Your task to perform on an android device: change your default location settings in chrome Image 0: 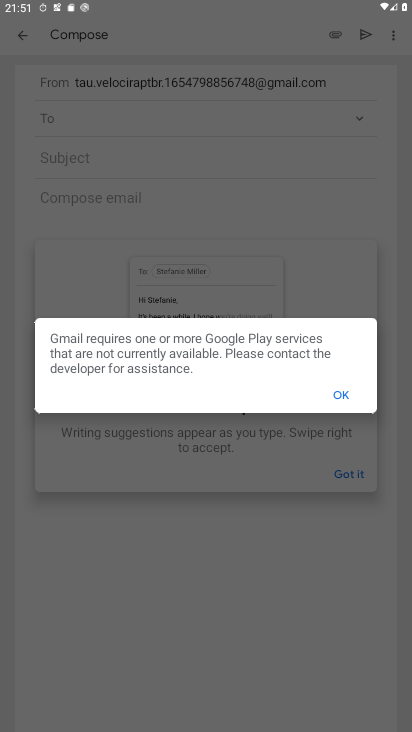
Step 0: press home button
Your task to perform on an android device: change your default location settings in chrome Image 1: 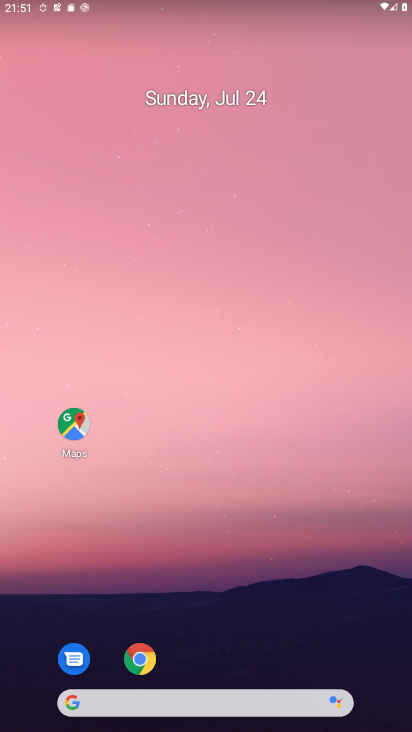
Step 1: drag from (205, 730) to (225, 120)
Your task to perform on an android device: change your default location settings in chrome Image 2: 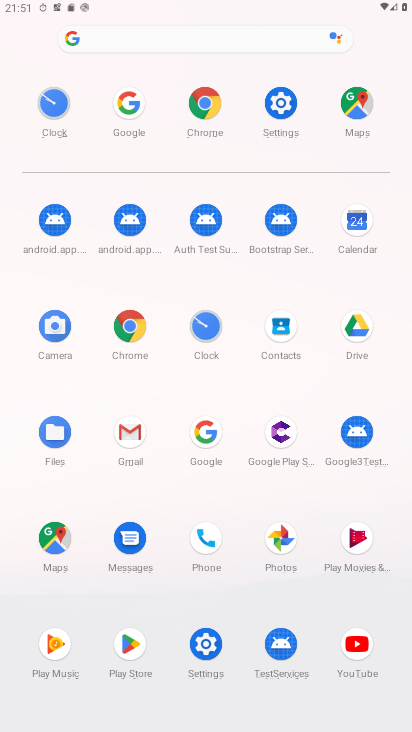
Step 2: click (128, 333)
Your task to perform on an android device: change your default location settings in chrome Image 3: 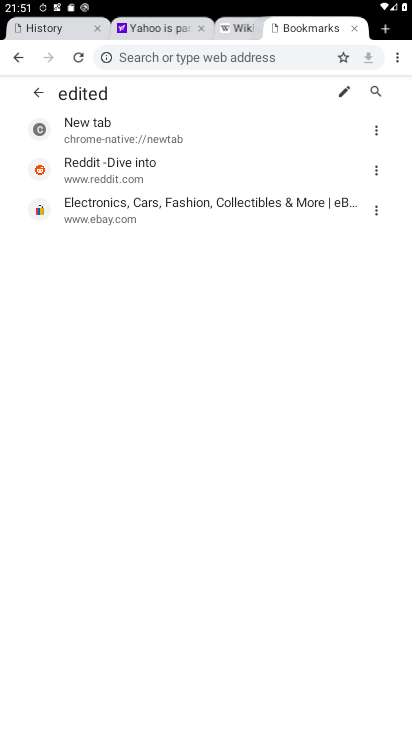
Step 3: click (398, 57)
Your task to perform on an android device: change your default location settings in chrome Image 4: 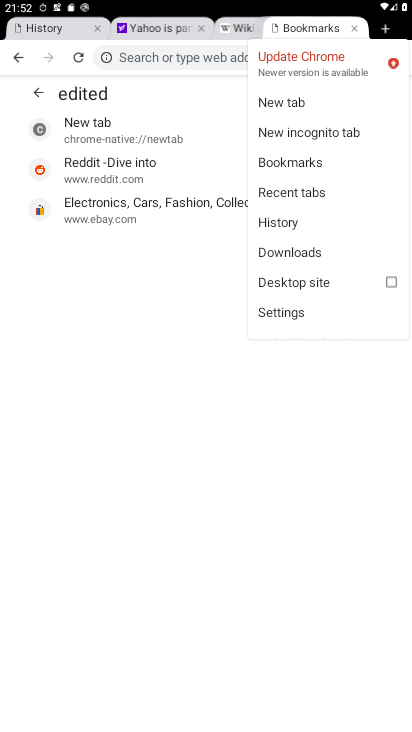
Step 4: click (269, 305)
Your task to perform on an android device: change your default location settings in chrome Image 5: 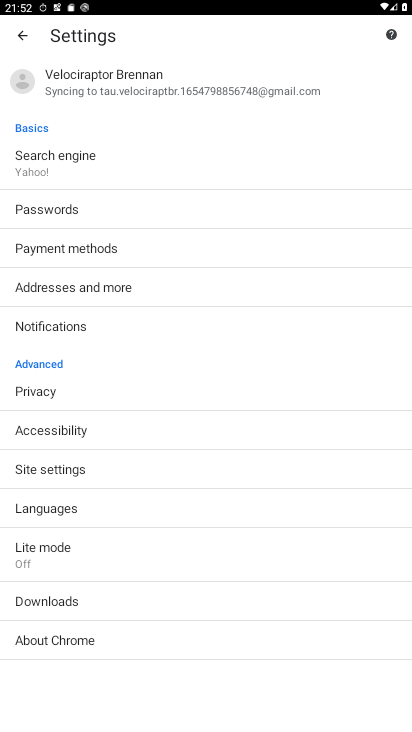
Step 5: click (50, 468)
Your task to perform on an android device: change your default location settings in chrome Image 6: 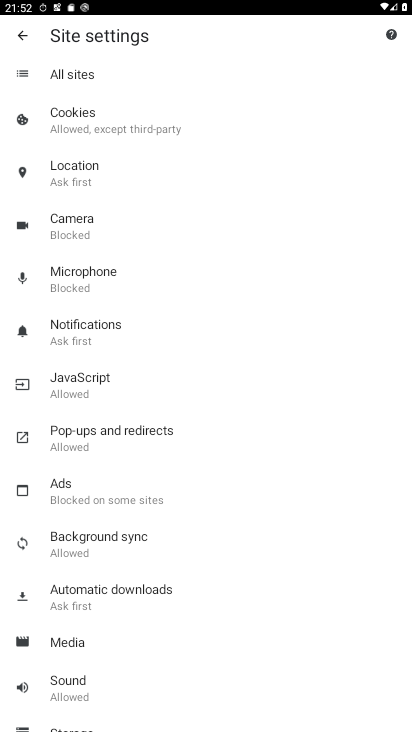
Step 6: click (58, 169)
Your task to perform on an android device: change your default location settings in chrome Image 7: 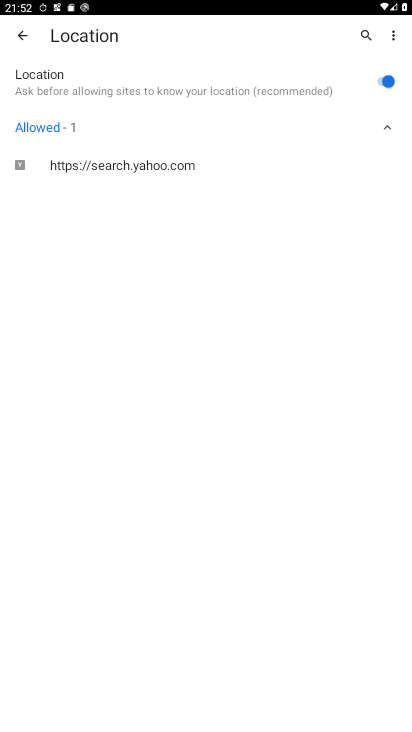
Step 7: click (384, 81)
Your task to perform on an android device: change your default location settings in chrome Image 8: 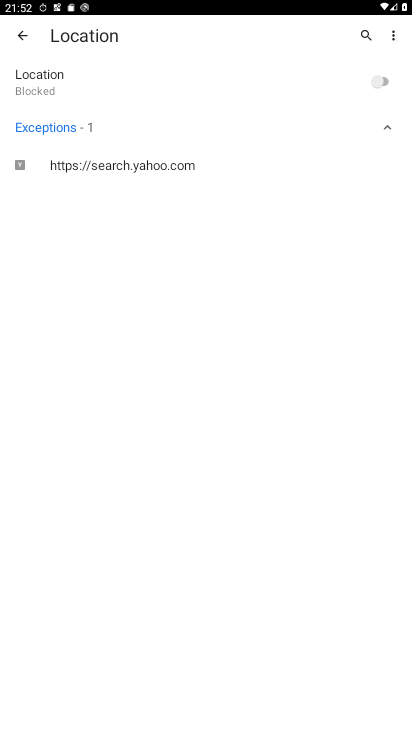
Step 8: task complete